Your task to perform on an android device: check data usage Image 0: 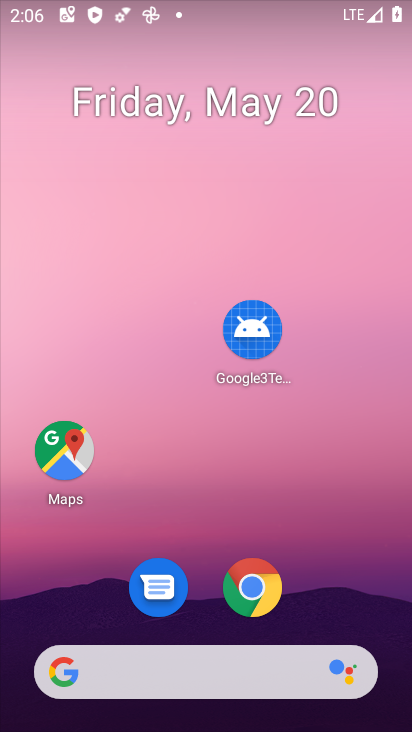
Step 0: drag from (309, 517) to (309, 200)
Your task to perform on an android device: check data usage Image 1: 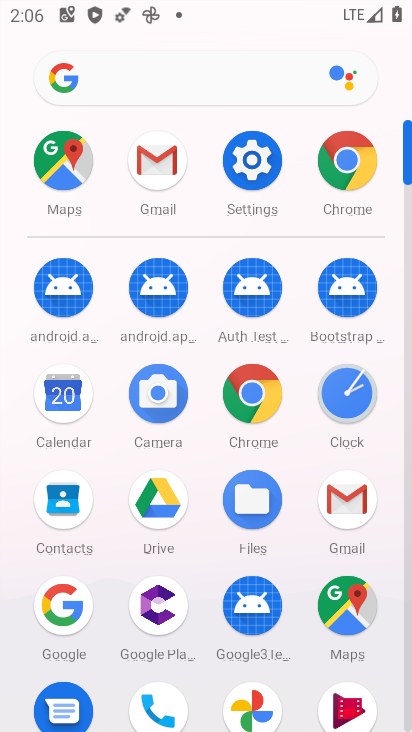
Step 1: click (250, 156)
Your task to perform on an android device: check data usage Image 2: 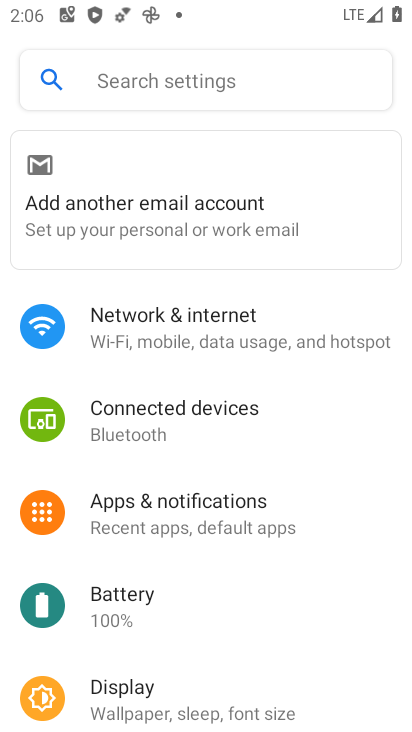
Step 2: click (208, 322)
Your task to perform on an android device: check data usage Image 3: 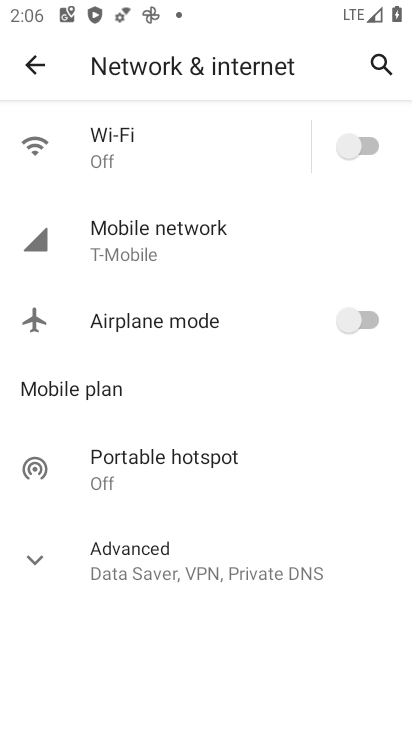
Step 3: click (138, 227)
Your task to perform on an android device: check data usage Image 4: 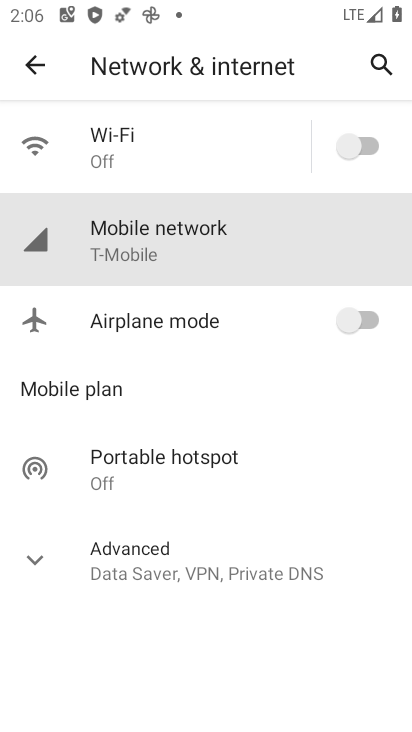
Step 4: click (138, 227)
Your task to perform on an android device: check data usage Image 5: 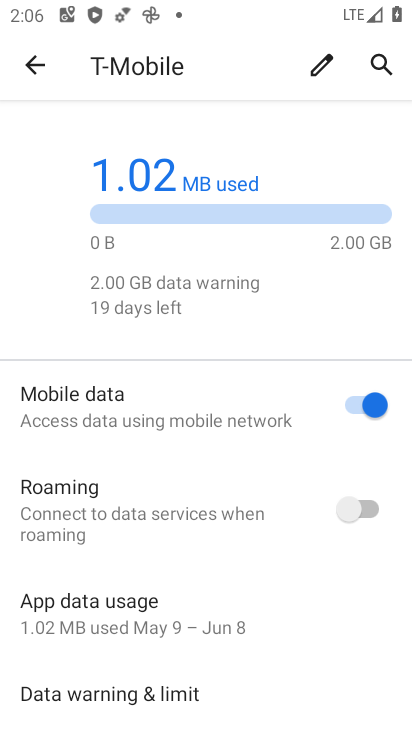
Step 5: task complete